Your task to perform on an android device: Go to Amazon Image 0: 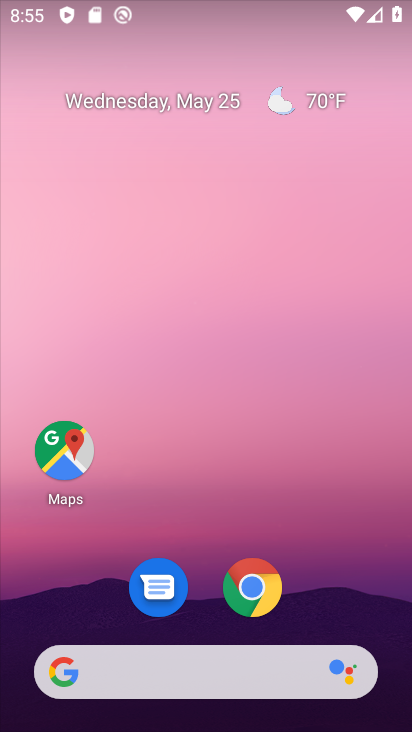
Step 0: click (246, 579)
Your task to perform on an android device: Go to Amazon Image 1: 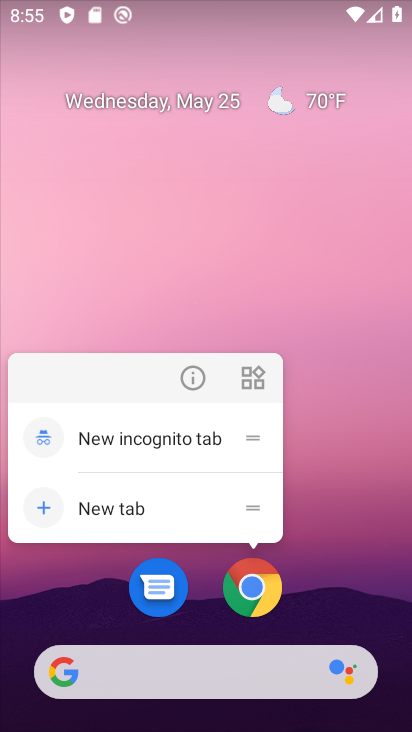
Step 1: click (259, 590)
Your task to perform on an android device: Go to Amazon Image 2: 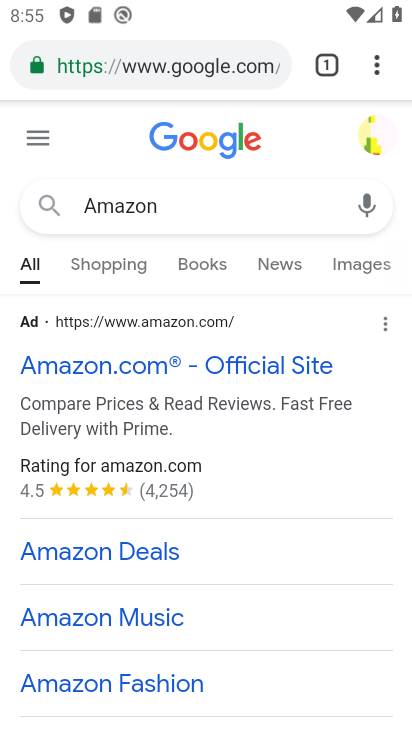
Step 2: click (137, 357)
Your task to perform on an android device: Go to Amazon Image 3: 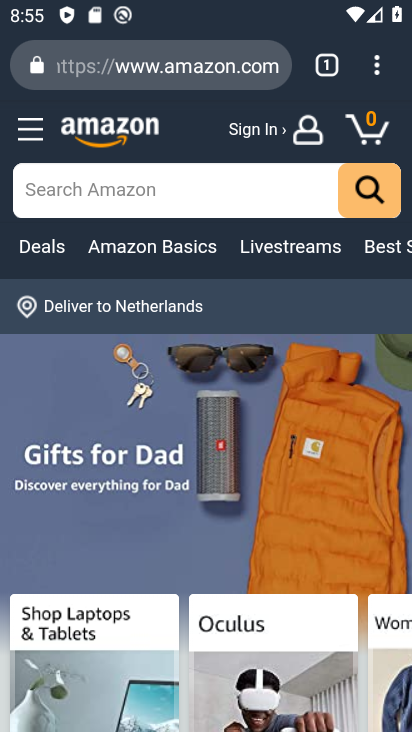
Step 3: task complete